Your task to perform on an android device: When is my next meeting? Image 0: 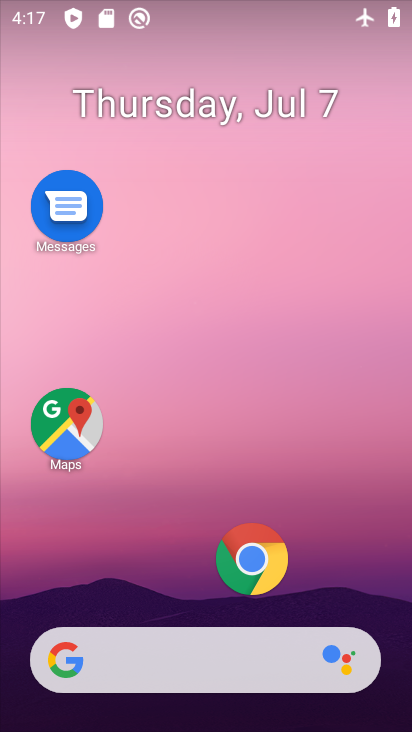
Step 0: drag from (215, 599) to (121, 11)
Your task to perform on an android device: When is my next meeting? Image 1: 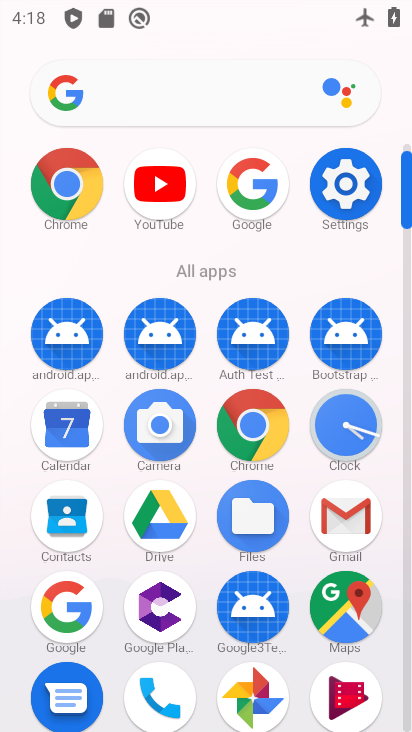
Step 1: click (53, 428)
Your task to perform on an android device: When is my next meeting? Image 2: 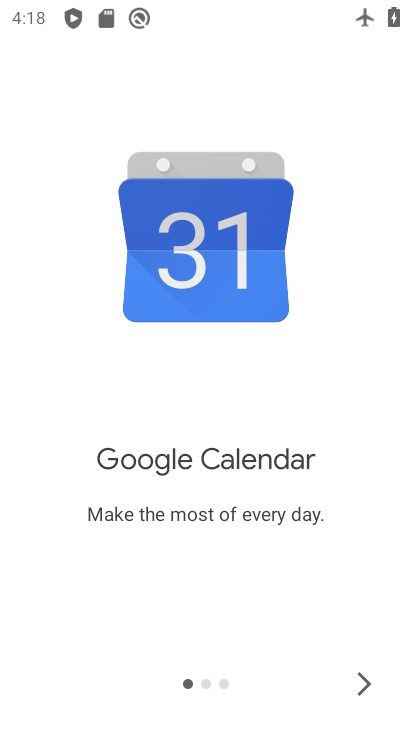
Step 2: click (368, 694)
Your task to perform on an android device: When is my next meeting? Image 3: 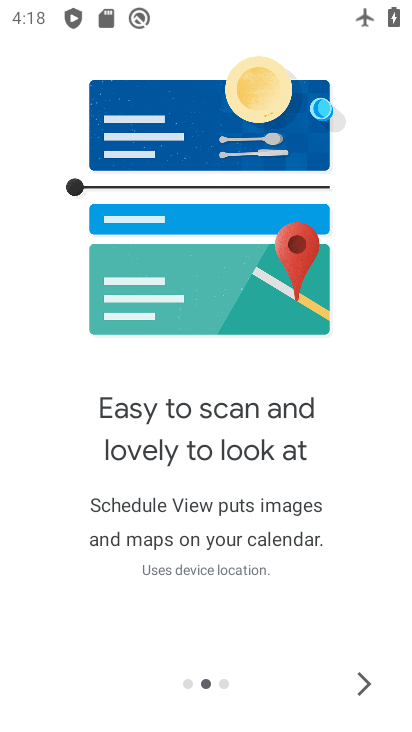
Step 3: click (358, 691)
Your task to perform on an android device: When is my next meeting? Image 4: 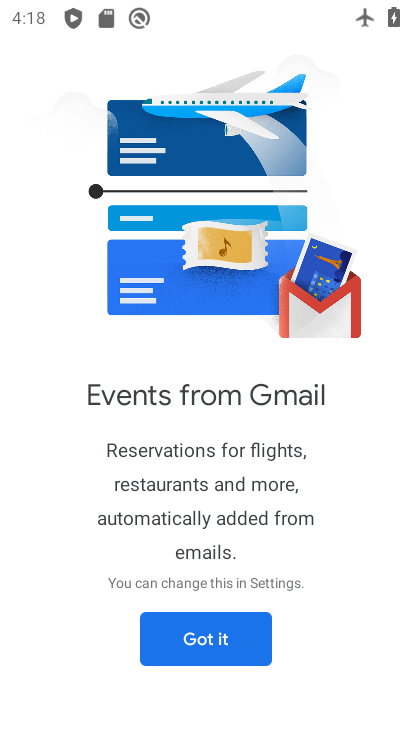
Step 4: click (207, 638)
Your task to perform on an android device: When is my next meeting? Image 5: 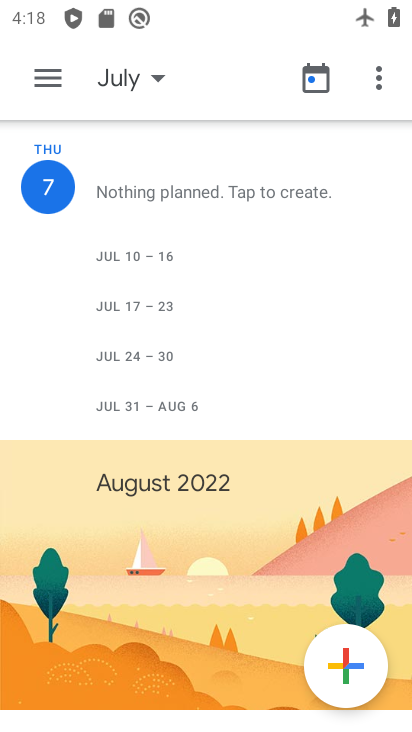
Step 5: click (25, 79)
Your task to perform on an android device: When is my next meeting? Image 6: 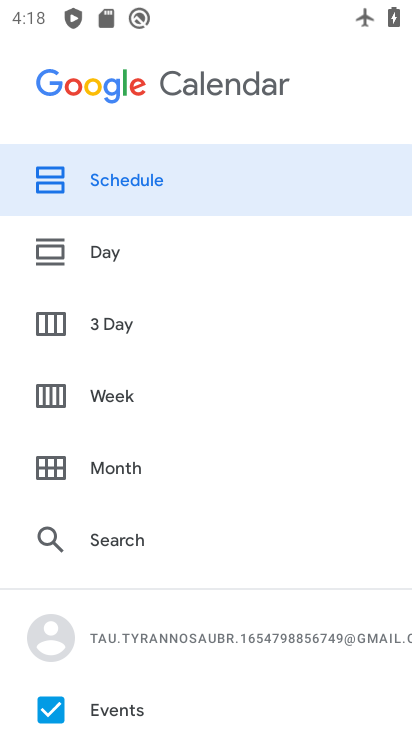
Step 6: task complete